Your task to perform on an android device: set default search engine in the chrome app Image 0: 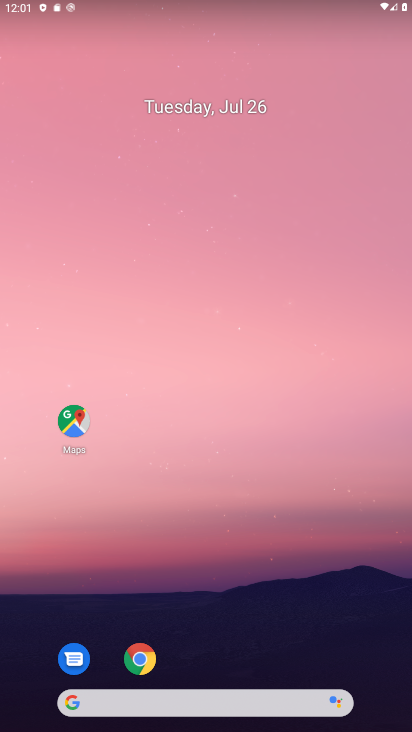
Step 0: press home button
Your task to perform on an android device: set default search engine in the chrome app Image 1: 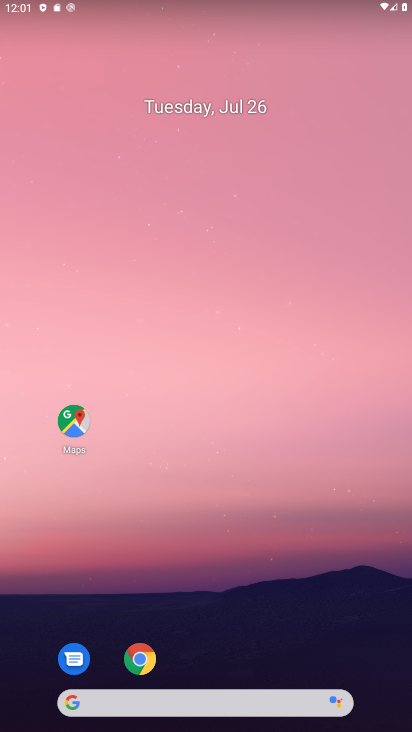
Step 1: drag from (194, 675) to (280, 204)
Your task to perform on an android device: set default search engine in the chrome app Image 2: 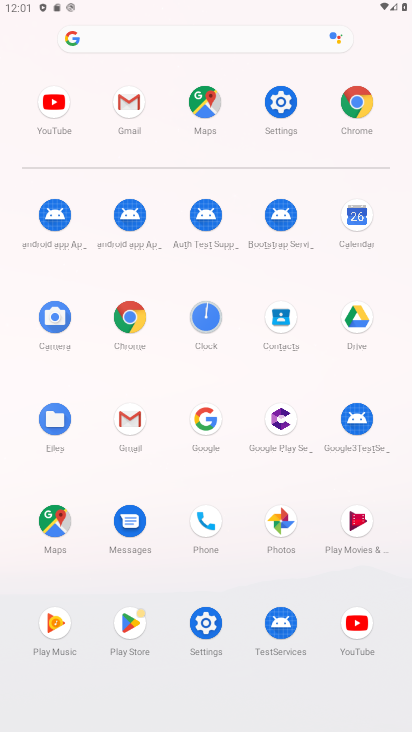
Step 2: click (118, 324)
Your task to perform on an android device: set default search engine in the chrome app Image 3: 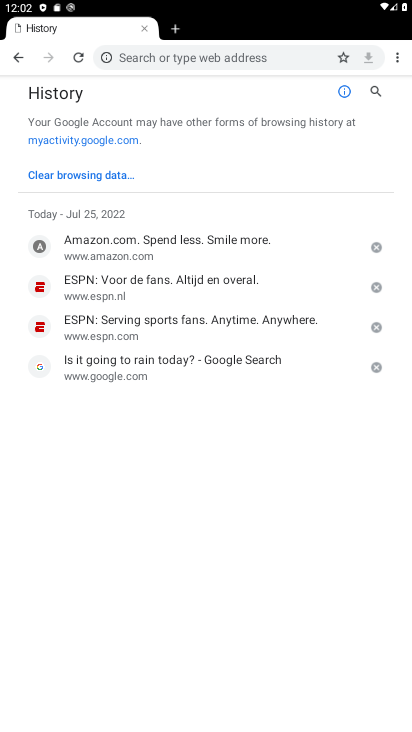
Step 3: drag from (395, 47) to (306, 302)
Your task to perform on an android device: set default search engine in the chrome app Image 4: 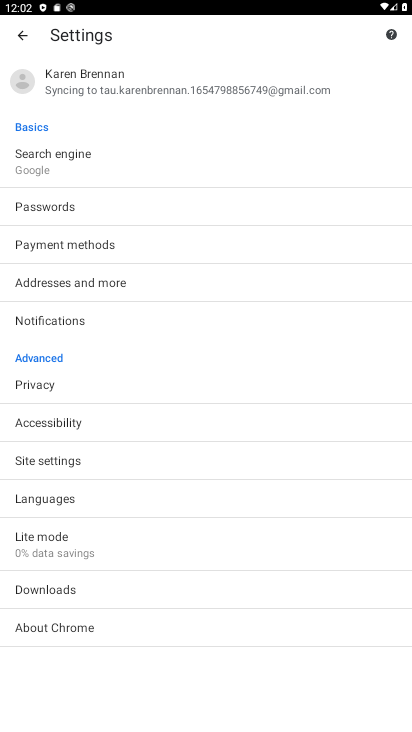
Step 4: click (85, 165)
Your task to perform on an android device: set default search engine in the chrome app Image 5: 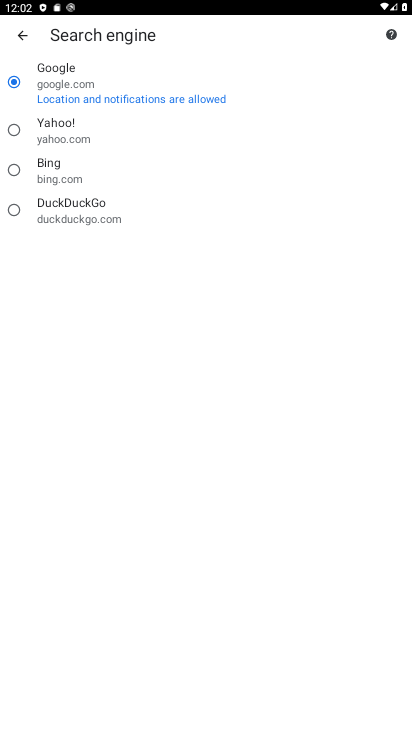
Step 5: click (48, 75)
Your task to perform on an android device: set default search engine in the chrome app Image 6: 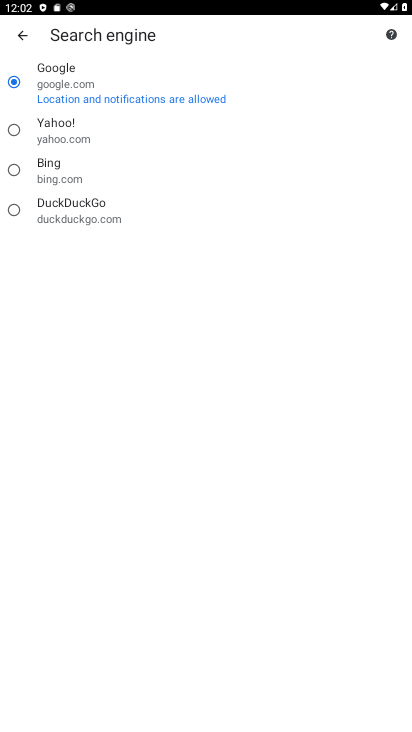
Step 6: task complete